Your task to perform on an android device: open a bookmark in the chrome app Image 0: 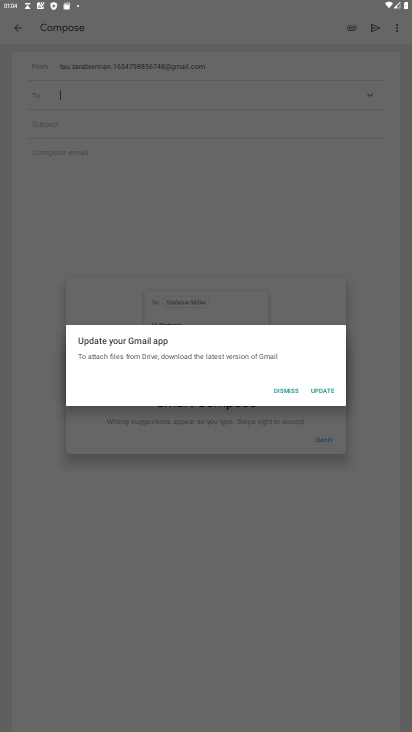
Step 0: press home button
Your task to perform on an android device: open a bookmark in the chrome app Image 1: 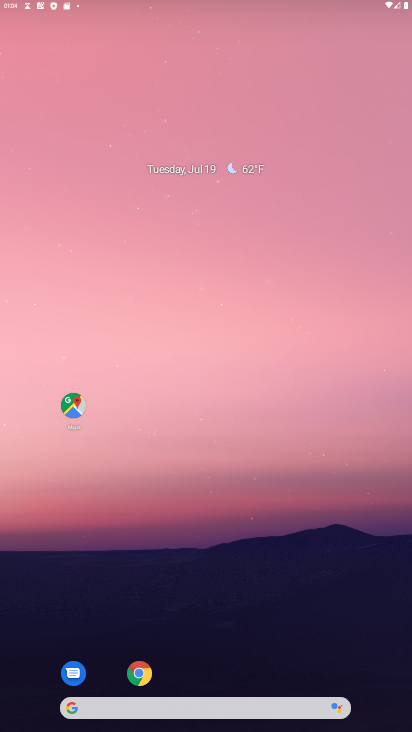
Step 1: drag from (267, 730) to (269, 499)
Your task to perform on an android device: open a bookmark in the chrome app Image 2: 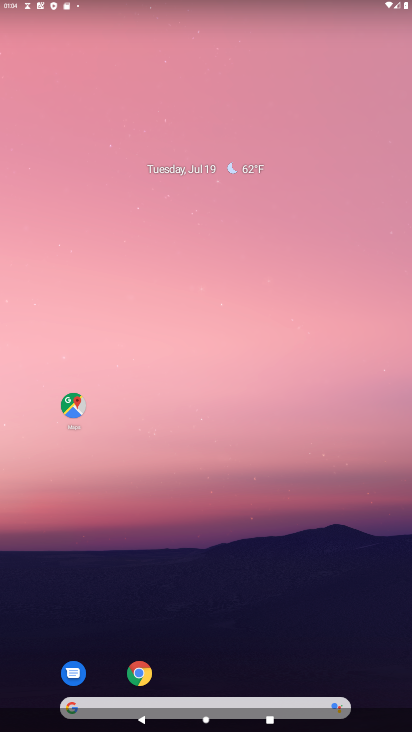
Step 2: click (148, 665)
Your task to perform on an android device: open a bookmark in the chrome app Image 3: 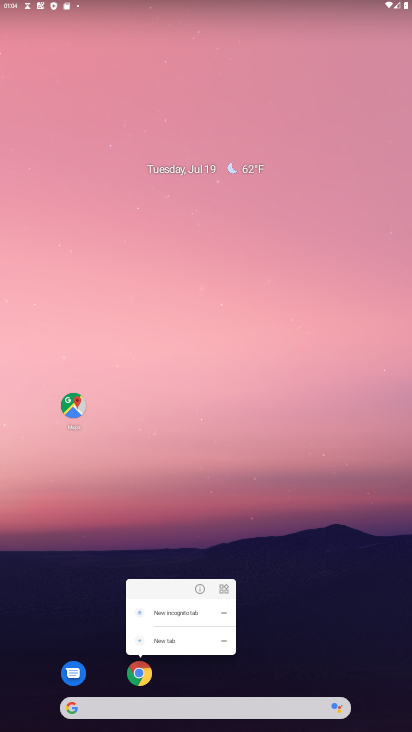
Step 3: click (137, 674)
Your task to perform on an android device: open a bookmark in the chrome app Image 4: 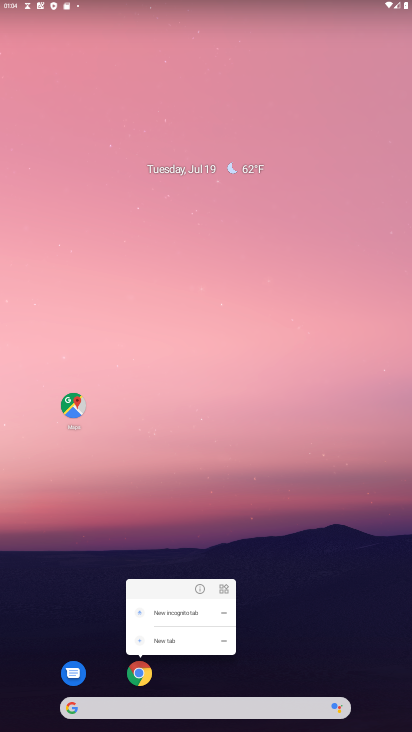
Step 4: click (135, 679)
Your task to perform on an android device: open a bookmark in the chrome app Image 5: 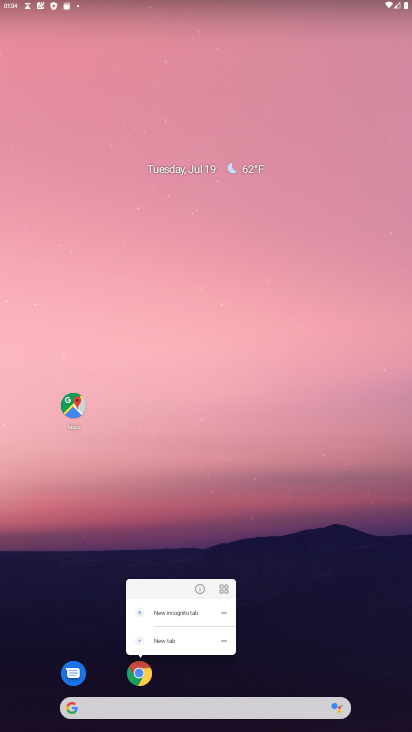
Step 5: click (146, 669)
Your task to perform on an android device: open a bookmark in the chrome app Image 6: 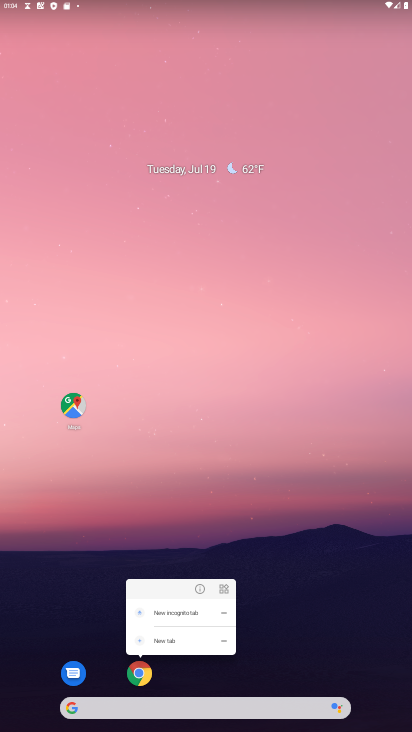
Step 6: click (314, 417)
Your task to perform on an android device: open a bookmark in the chrome app Image 7: 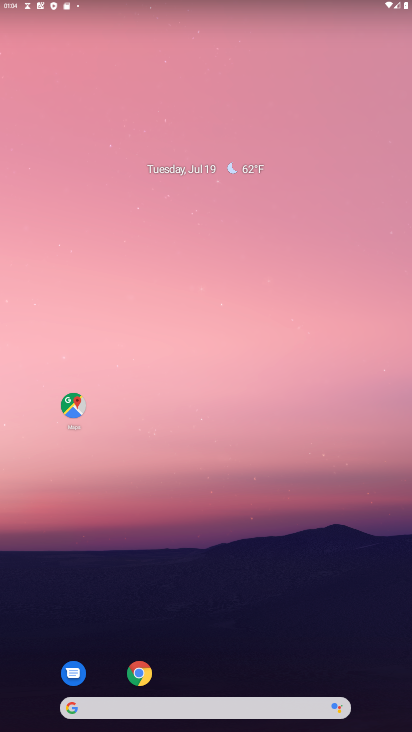
Step 7: drag from (293, 714) to (293, 261)
Your task to perform on an android device: open a bookmark in the chrome app Image 8: 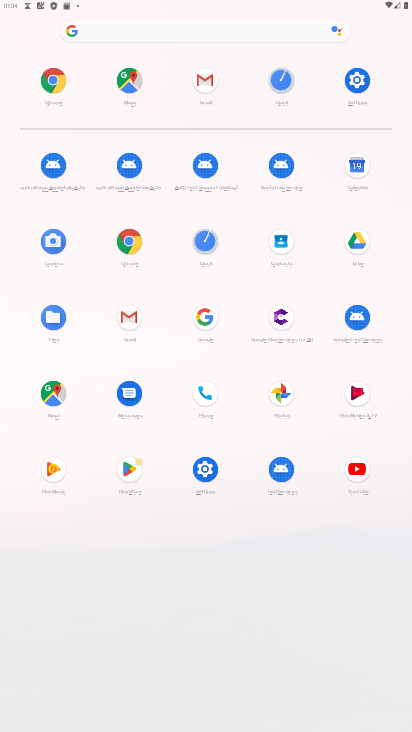
Step 8: click (125, 243)
Your task to perform on an android device: open a bookmark in the chrome app Image 9: 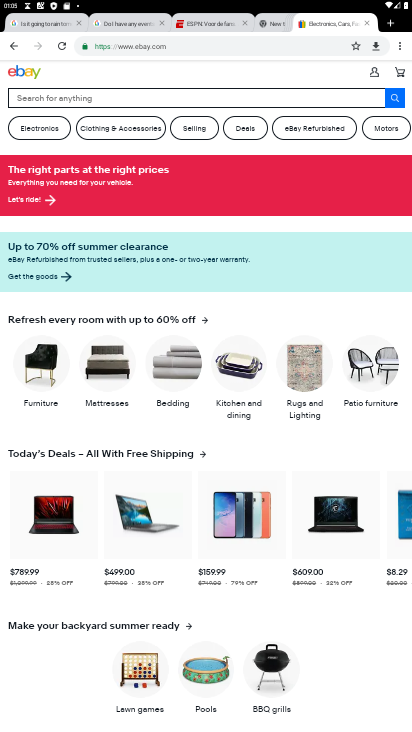
Step 9: click (396, 46)
Your task to perform on an android device: open a bookmark in the chrome app Image 10: 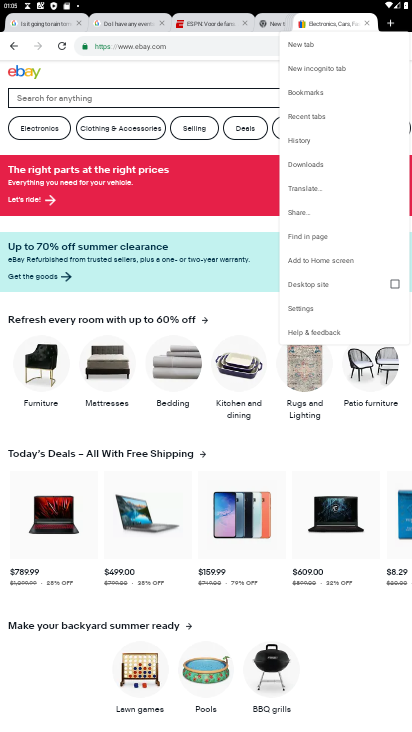
Step 10: click (325, 92)
Your task to perform on an android device: open a bookmark in the chrome app Image 11: 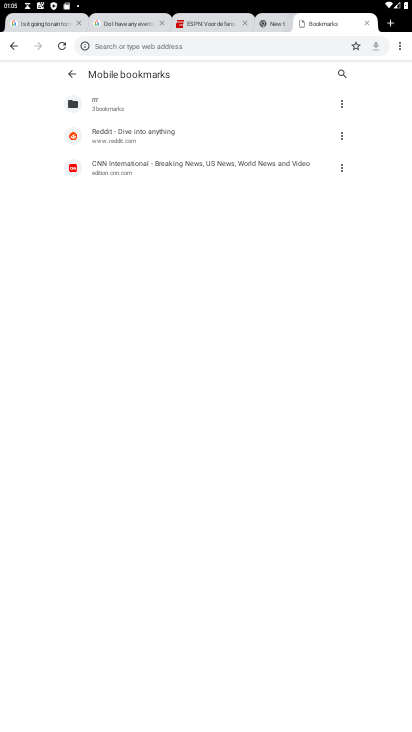
Step 11: task complete